Your task to perform on an android device: Open Google Image 0: 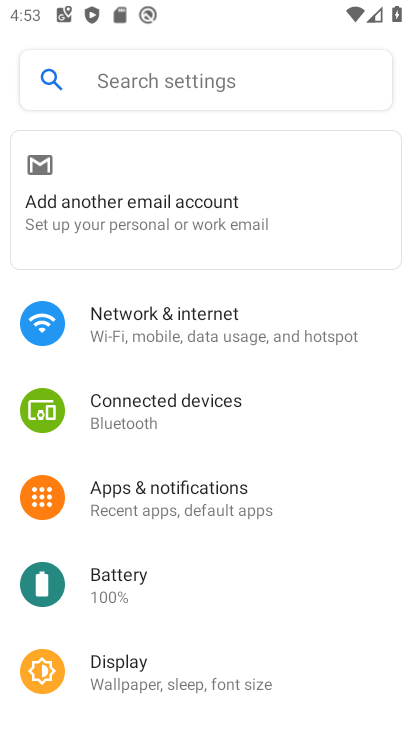
Step 0: press back button
Your task to perform on an android device: Open Google Image 1: 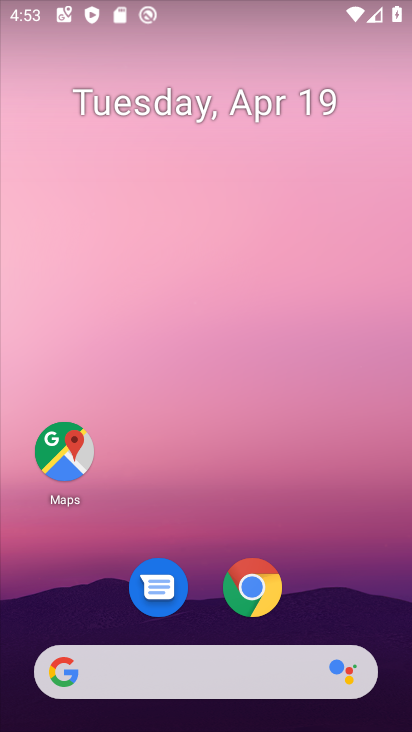
Step 1: drag from (339, 556) to (236, 4)
Your task to perform on an android device: Open Google Image 2: 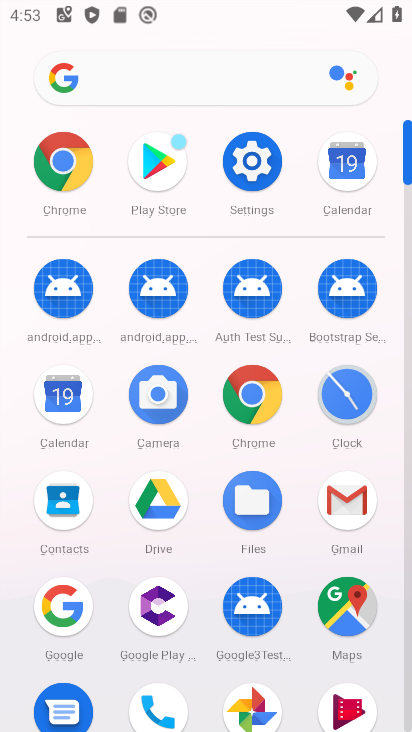
Step 2: click (255, 390)
Your task to perform on an android device: Open Google Image 3: 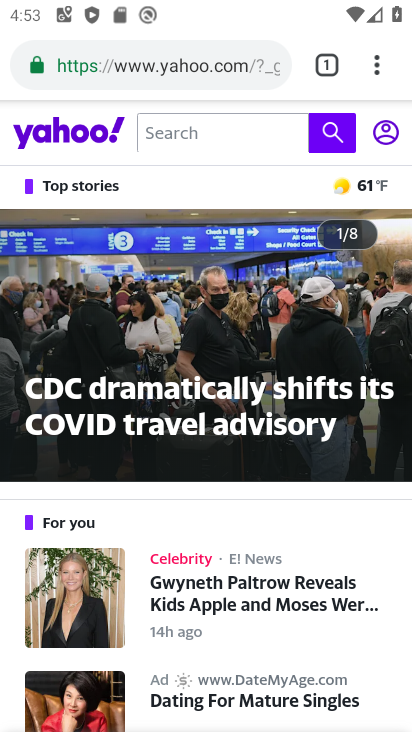
Step 3: click (166, 66)
Your task to perform on an android device: Open Google Image 4: 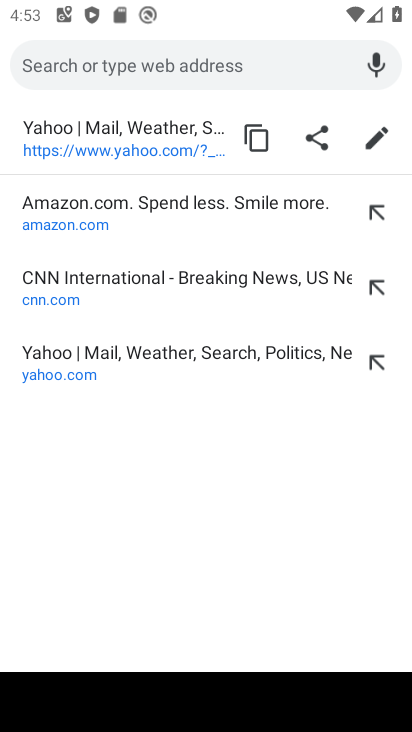
Step 4: type "google"
Your task to perform on an android device: Open Google Image 5: 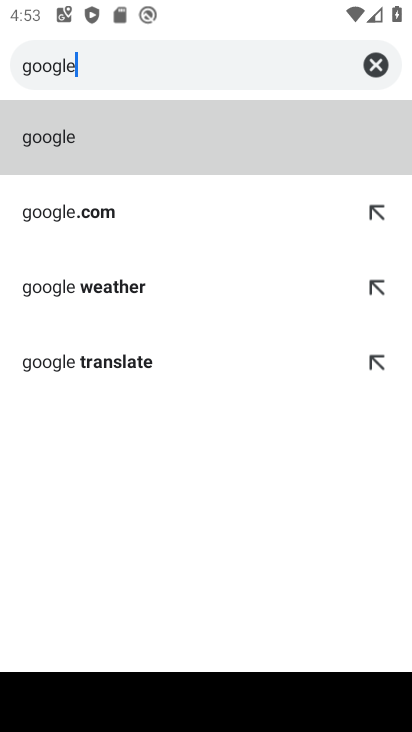
Step 5: click (159, 98)
Your task to perform on an android device: Open Google Image 6: 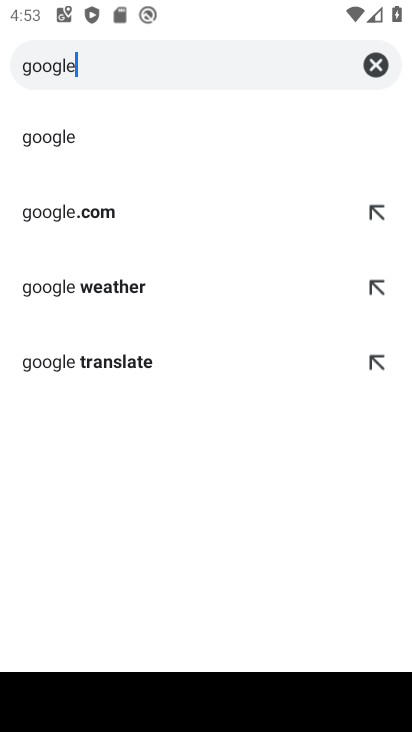
Step 6: click (148, 127)
Your task to perform on an android device: Open Google Image 7: 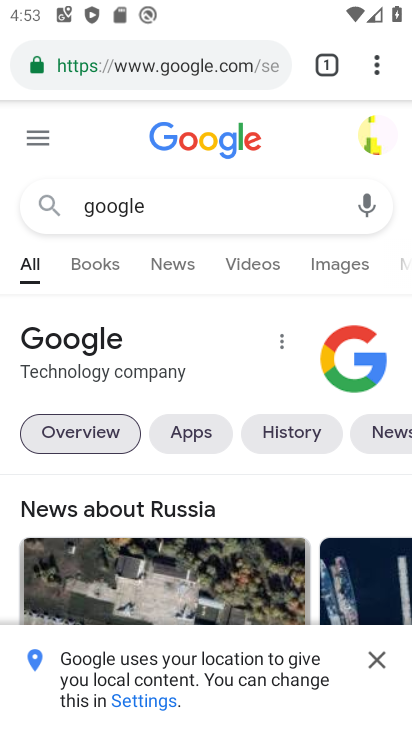
Step 7: drag from (147, 558) to (135, 223)
Your task to perform on an android device: Open Google Image 8: 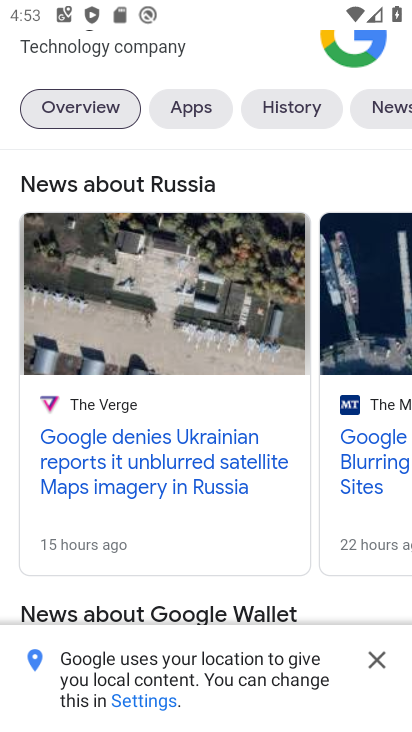
Step 8: drag from (240, 151) to (220, 397)
Your task to perform on an android device: Open Google Image 9: 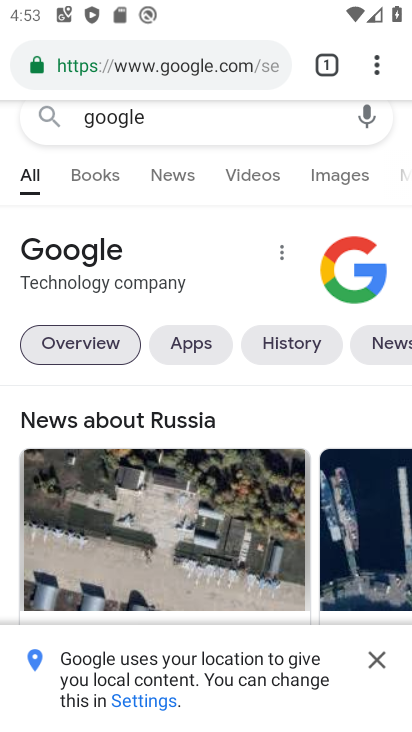
Step 9: drag from (162, 490) to (217, 179)
Your task to perform on an android device: Open Google Image 10: 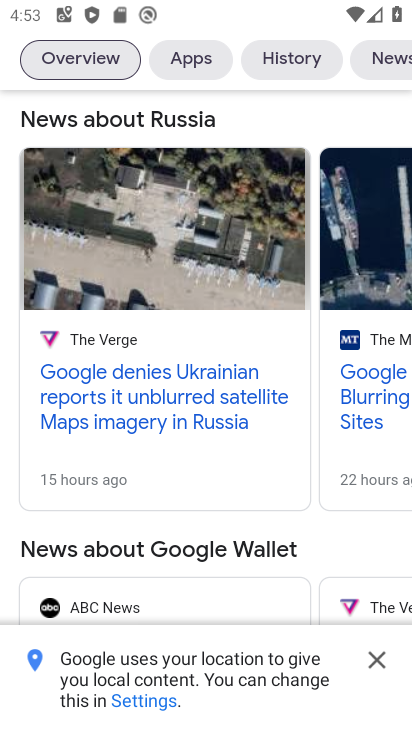
Step 10: drag from (181, 469) to (173, 137)
Your task to perform on an android device: Open Google Image 11: 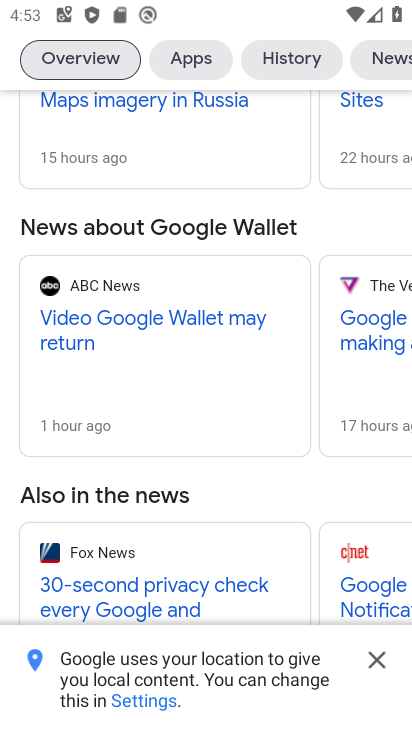
Step 11: drag from (170, 492) to (166, 135)
Your task to perform on an android device: Open Google Image 12: 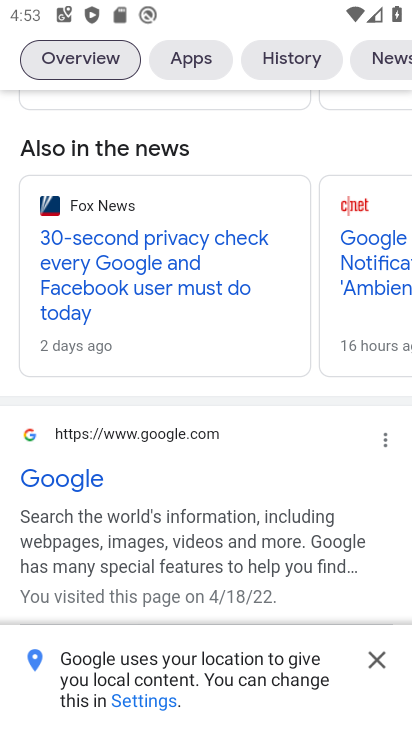
Step 12: click (64, 474)
Your task to perform on an android device: Open Google Image 13: 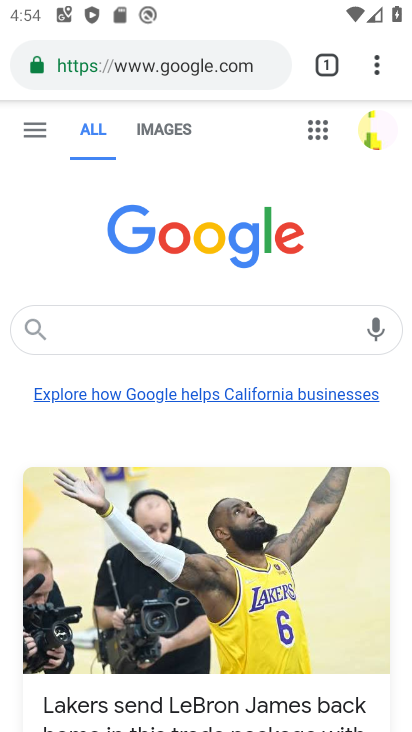
Step 13: task complete